Your task to perform on an android device: Open Google Image 0: 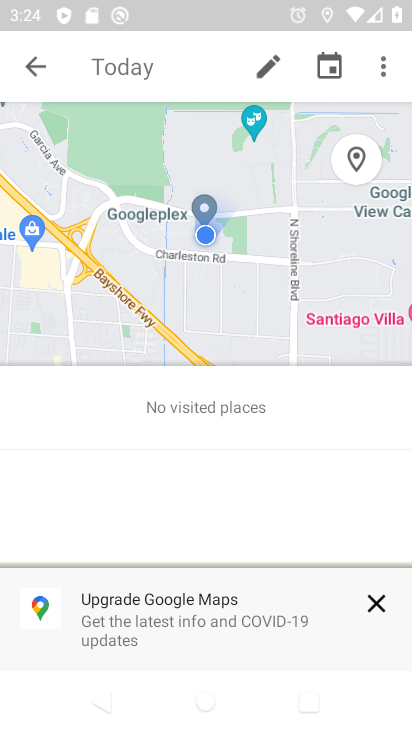
Step 0: click (43, 57)
Your task to perform on an android device: Open Google Image 1: 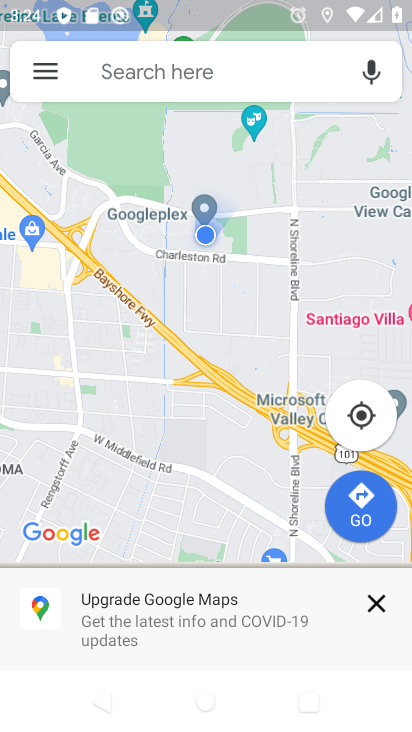
Step 1: press home button
Your task to perform on an android device: Open Google Image 2: 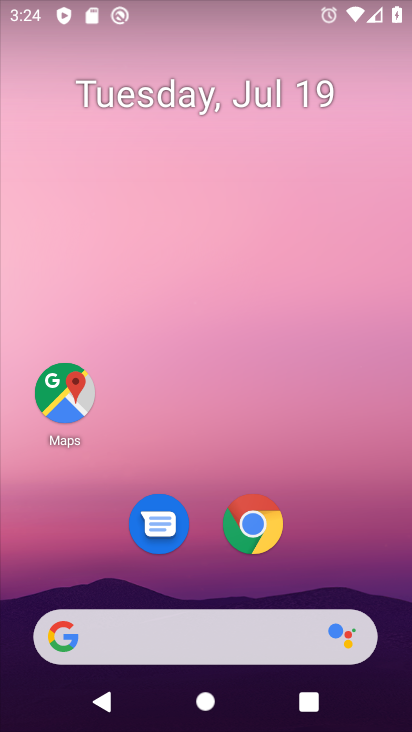
Step 2: drag from (227, 464) to (271, 18)
Your task to perform on an android device: Open Google Image 3: 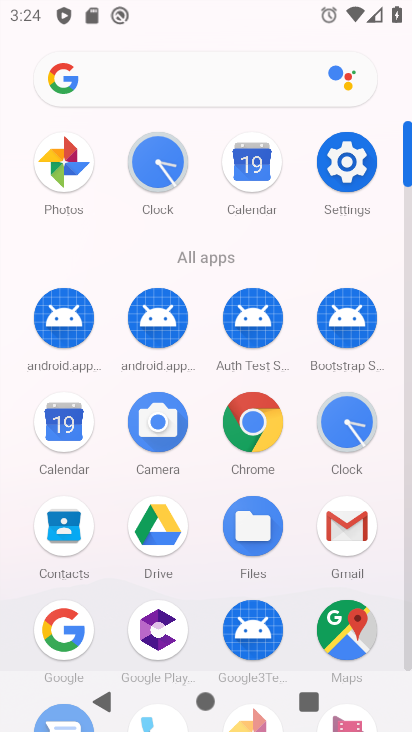
Step 3: click (73, 618)
Your task to perform on an android device: Open Google Image 4: 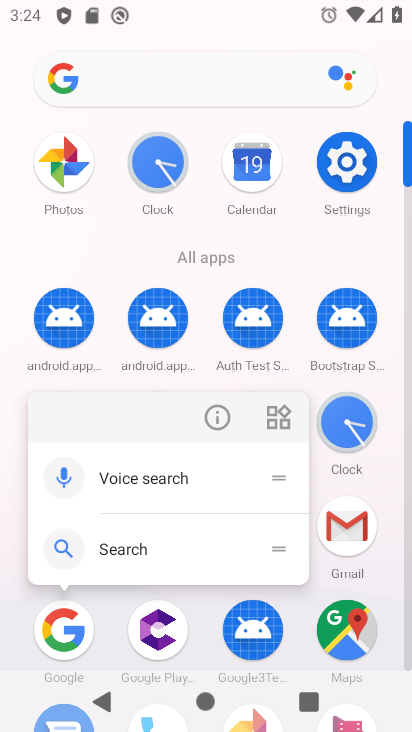
Step 4: click (67, 625)
Your task to perform on an android device: Open Google Image 5: 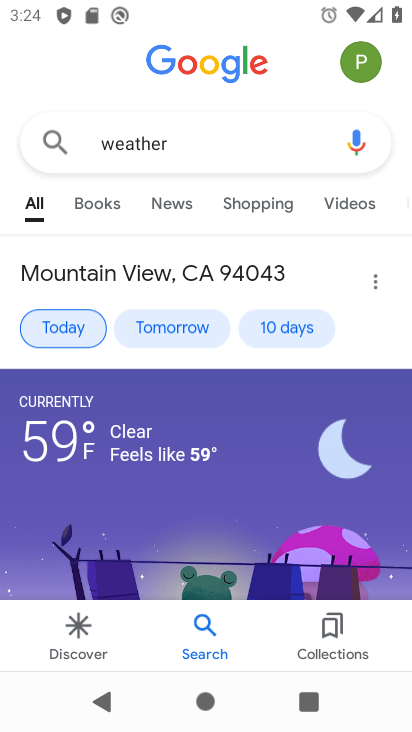
Step 5: click (224, 54)
Your task to perform on an android device: Open Google Image 6: 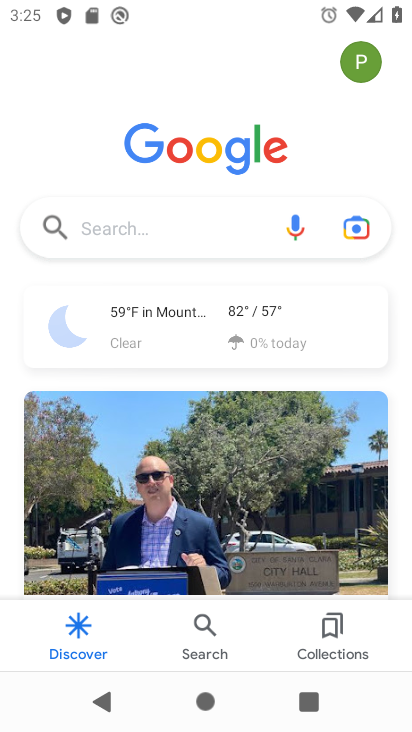
Step 6: task complete